Your task to perform on an android device: Go to CNN.com Image 0: 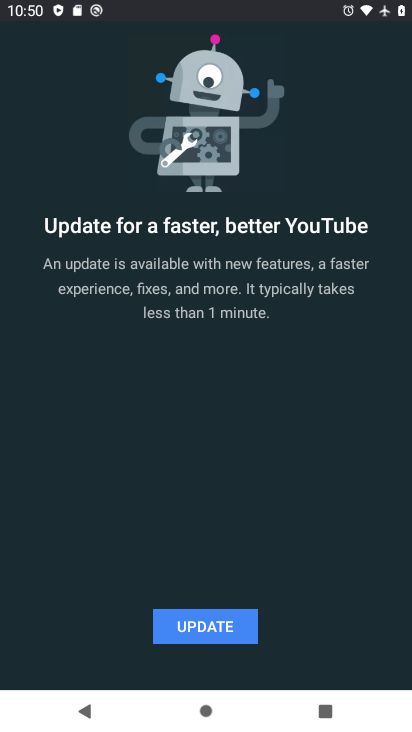
Step 0: press home button
Your task to perform on an android device: Go to CNN.com Image 1: 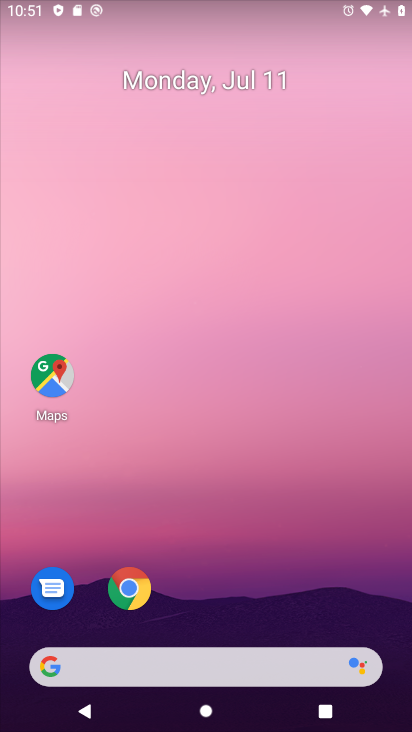
Step 1: click (131, 596)
Your task to perform on an android device: Go to CNN.com Image 2: 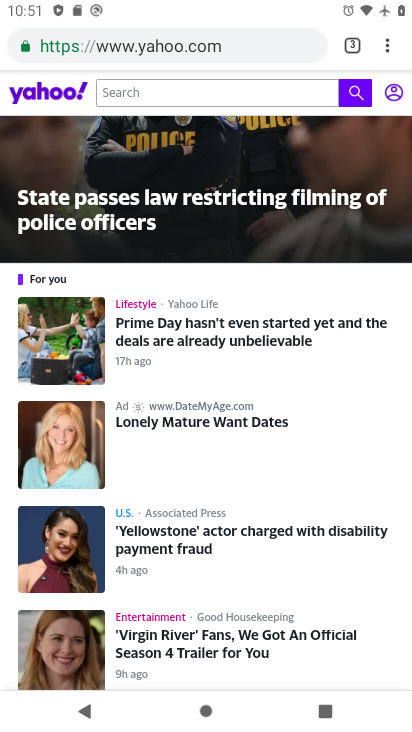
Step 2: drag from (385, 42) to (302, 98)
Your task to perform on an android device: Go to CNN.com Image 3: 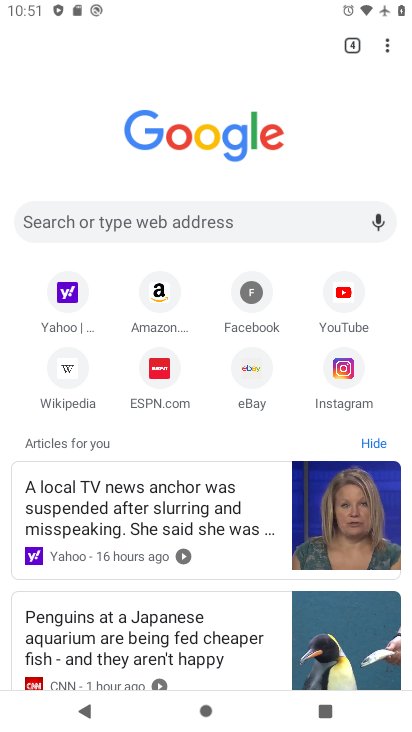
Step 3: click (164, 228)
Your task to perform on an android device: Go to CNN.com Image 4: 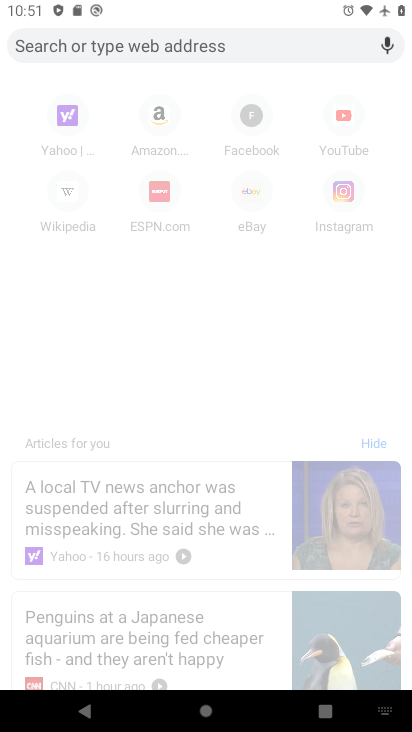
Step 4: type "cnn.com"
Your task to perform on an android device: Go to CNN.com Image 5: 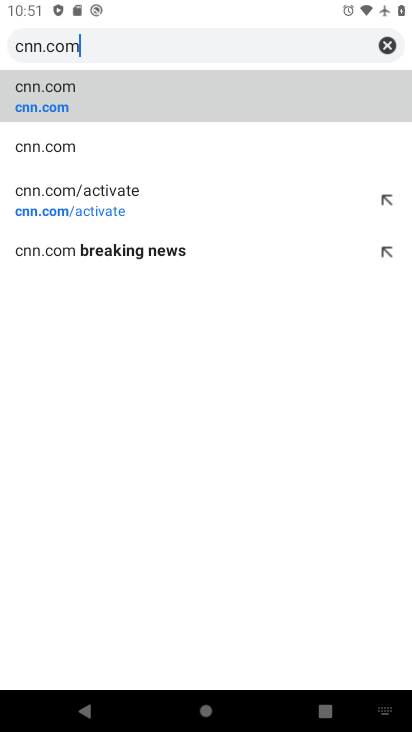
Step 5: click (76, 98)
Your task to perform on an android device: Go to CNN.com Image 6: 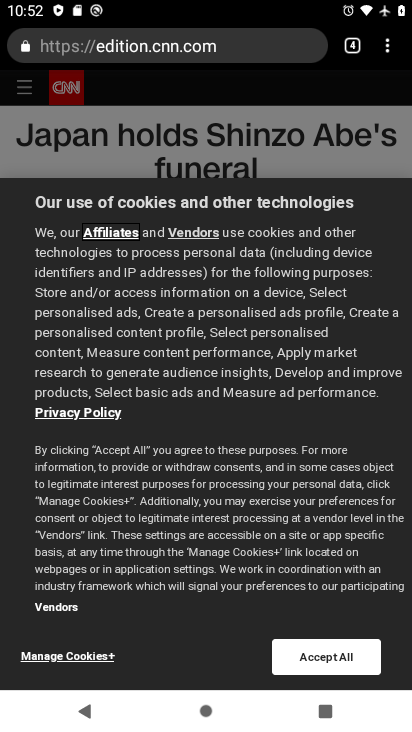
Step 6: click (336, 664)
Your task to perform on an android device: Go to CNN.com Image 7: 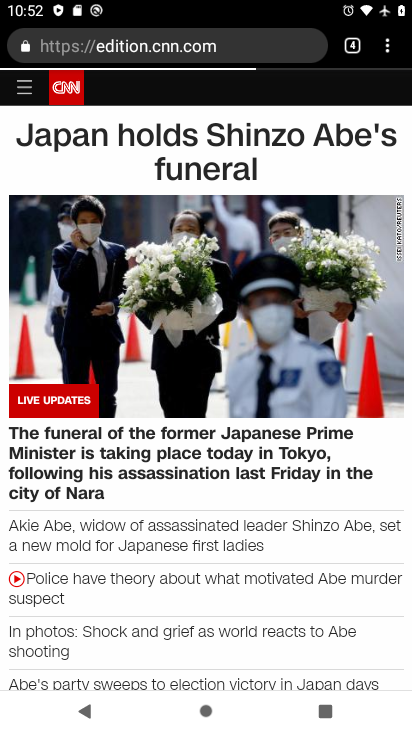
Step 7: task complete